Your task to perform on an android device: turn on bluetooth scan Image 0: 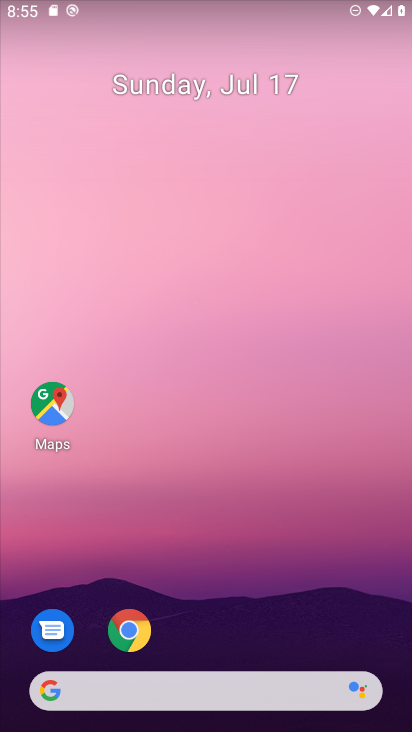
Step 0: click (268, 331)
Your task to perform on an android device: turn on bluetooth scan Image 1: 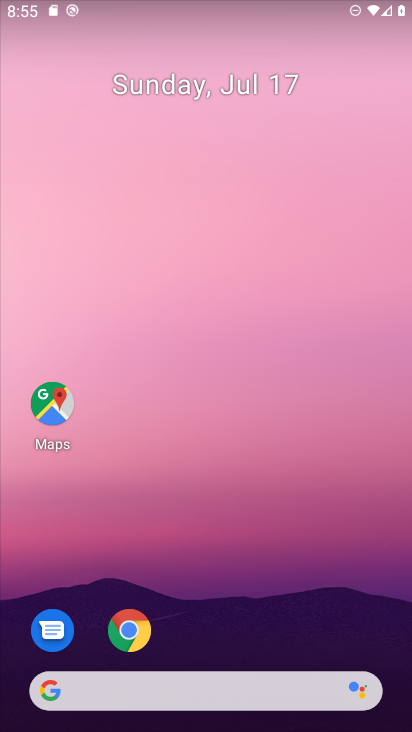
Step 1: drag from (206, 719) to (204, 226)
Your task to perform on an android device: turn on bluetooth scan Image 2: 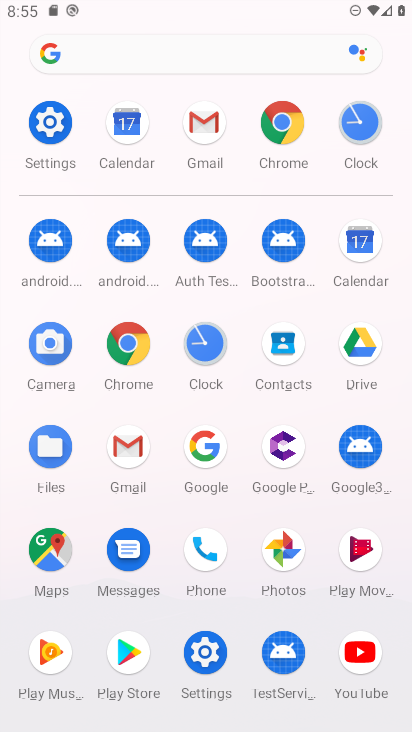
Step 2: click (54, 113)
Your task to perform on an android device: turn on bluetooth scan Image 3: 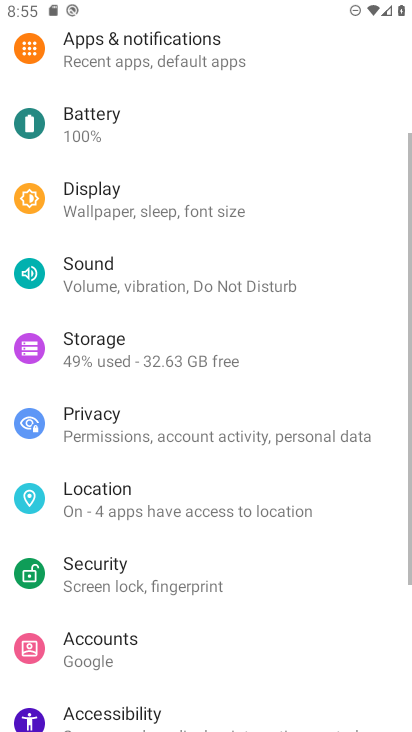
Step 3: drag from (274, 125) to (236, 699)
Your task to perform on an android device: turn on bluetooth scan Image 4: 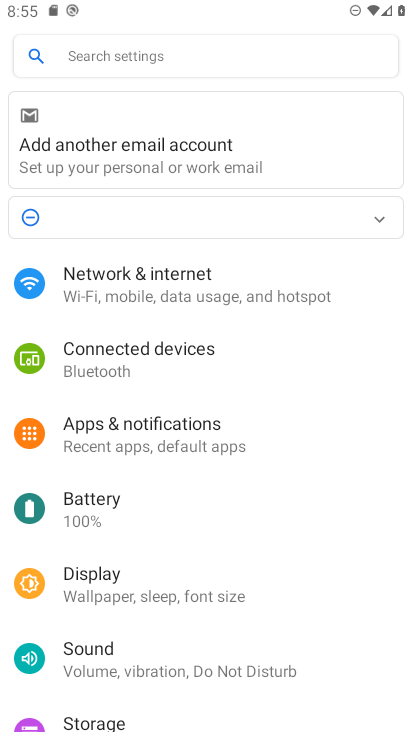
Step 4: click (214, 53)
Your task to perform on an android device: turn on bluetooth scan Image 5: 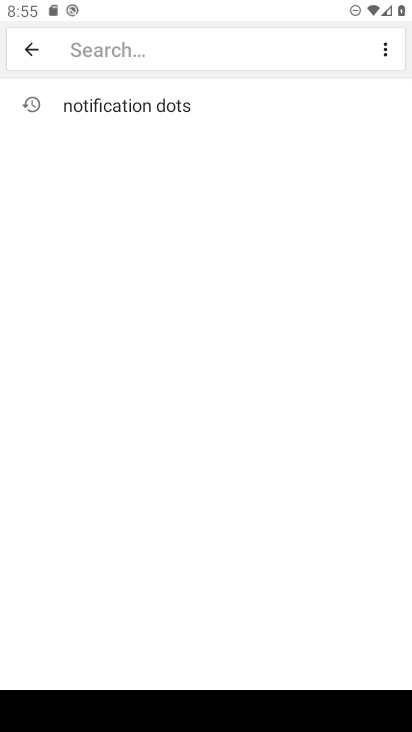
Step 5: type "bluetooth scan "
Your task to perform on an android device: turn on bluetooth scan Image 6: 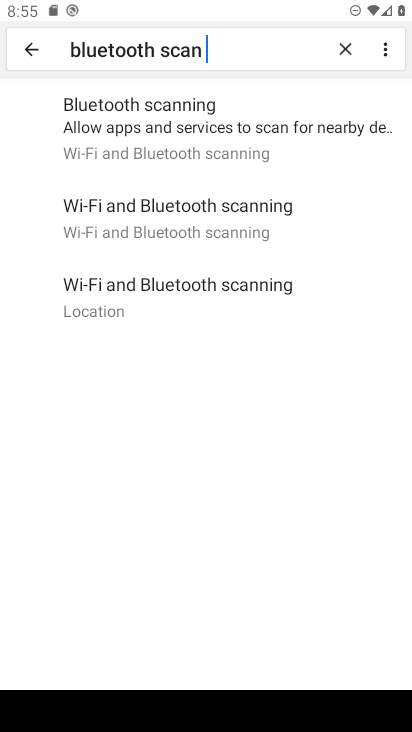
Step 6: click (265, 118)
Your task to perform on an android device: turn on bluetooth scan Image 7: 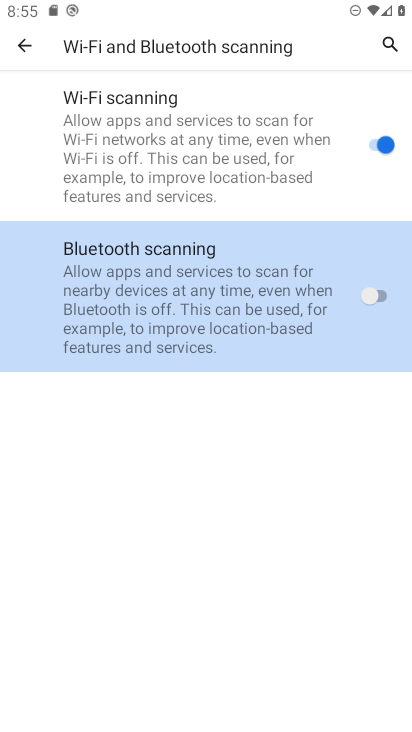
Step 7: click (376, 289)
Your task to perform on an android device: turn on bluetooth scan Image 8: 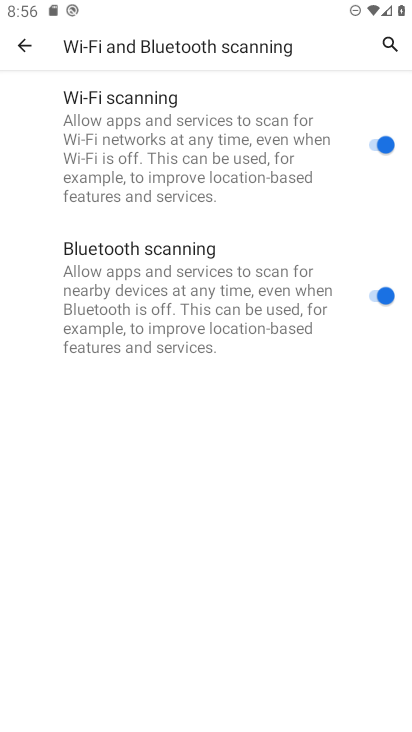
Step 8: task complete